Your task to perform on an android device: turn off priority inbox in the gmail app Image 0: 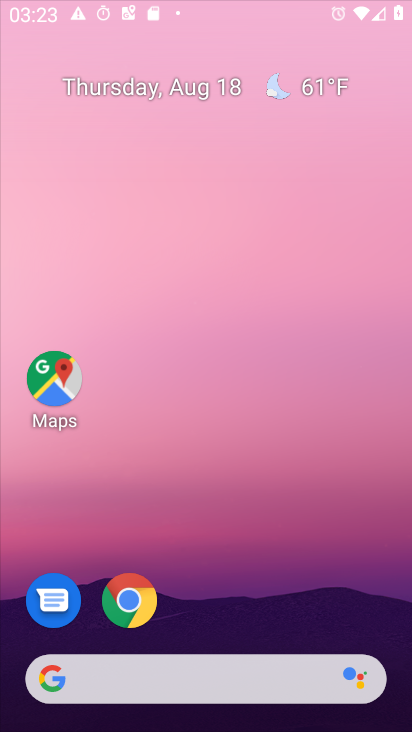
Step 0: press home button
Your task to perform on an android device: turn off priority inbox in the gmail app Image 1: 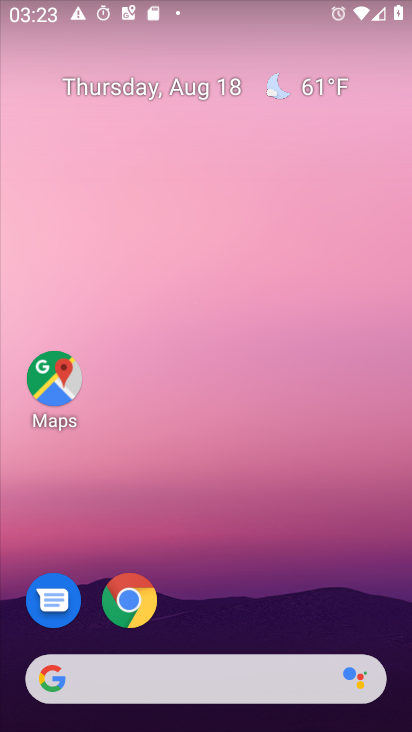
Step 1: drag from (285, 610) to (305, 25)
Your task to perform on an android device: turn off priority inbox in the gmail app Image 2: 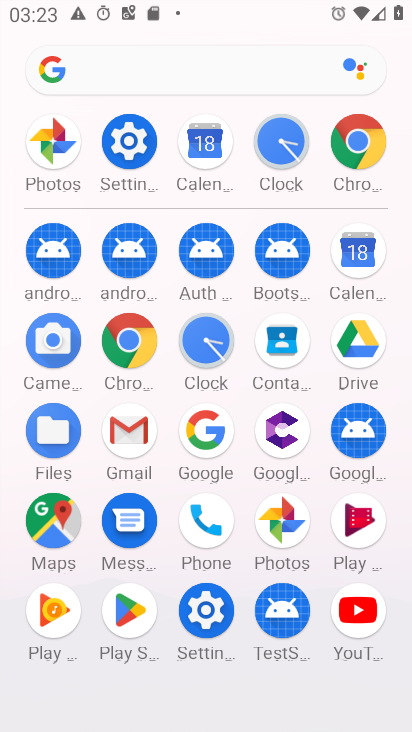
Step 2: click (129, 428)
Your task to perform on an android device: turn off priority inbox in the gmail app Image 3: 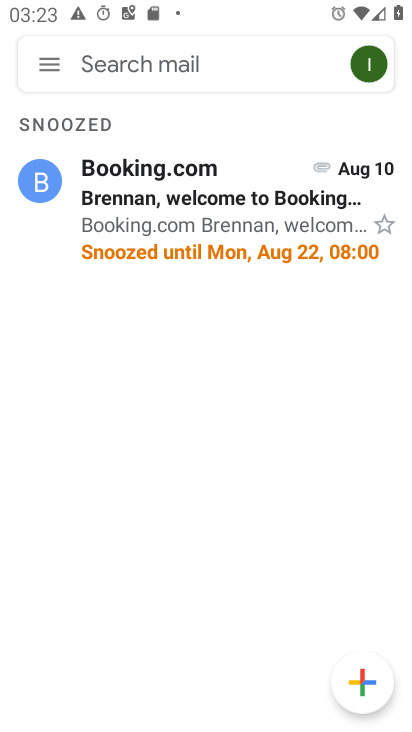
Step 3: click (49, 73)
Your task to perform on an android device: turn off priority inbox in the gmail app Image 4: 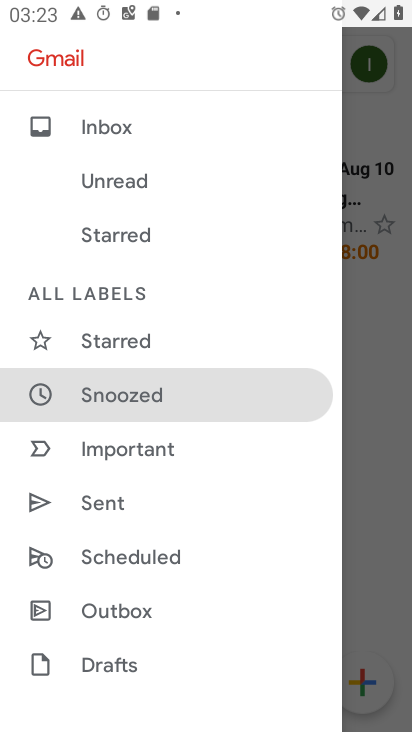
Step 4: drag from (277, 636) to (308, 249)
Your task to perform on an android device: turn off priority inbox in the gmail app Image 5: 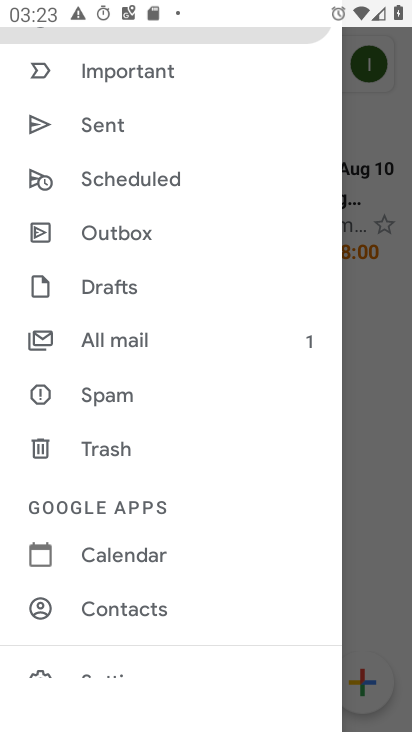
Step 5: drag from (273, 623) to (339, 375)
Your task to perform on an android device: turn off priority inbox in the gmail app Image 6: 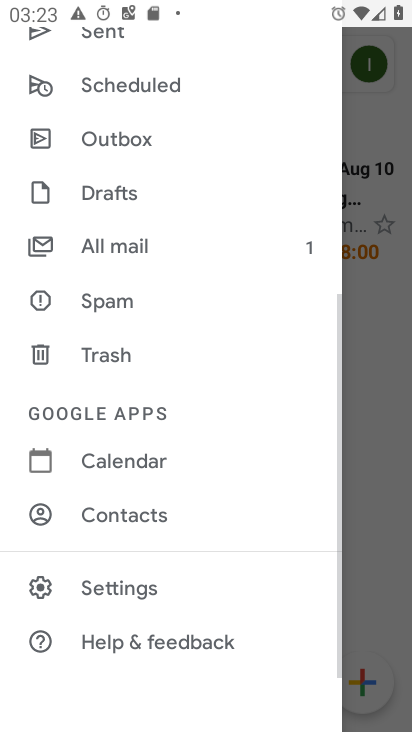
Step 6: click (117, 585)
Your task to perform on an android device: turn off priority inbox in the gmail app Image 7: 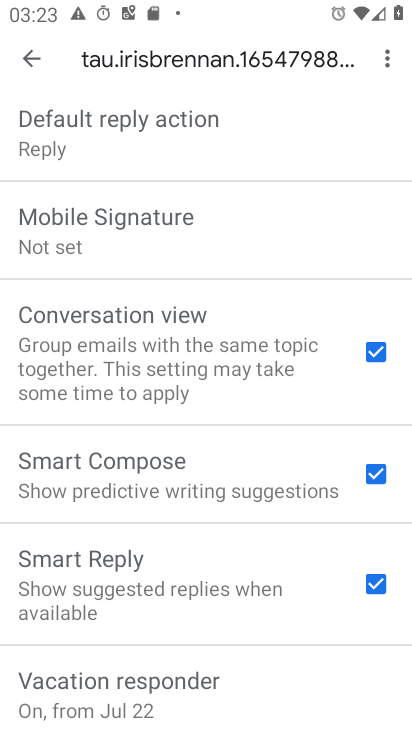
Step 7: drag from (275, 150) to (297, 566)
Your task to perform on an android device: turn off priority inbox in the gmail app Image 8: 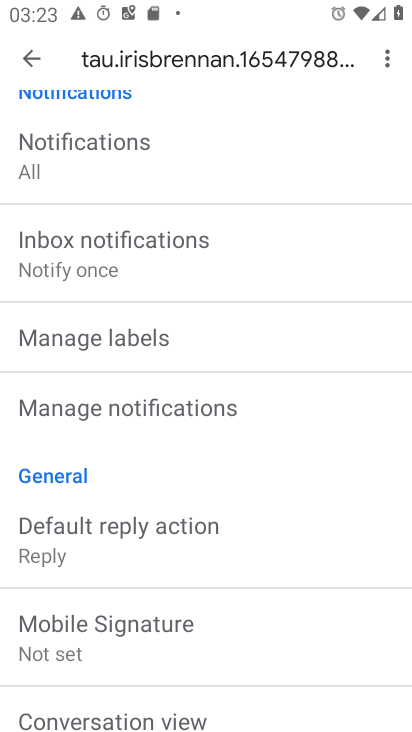
Step 8: drag from (191, 167) to (216, 467)
Your task to perform on an android device: turn off priority inbox in the gmail app Image 9: 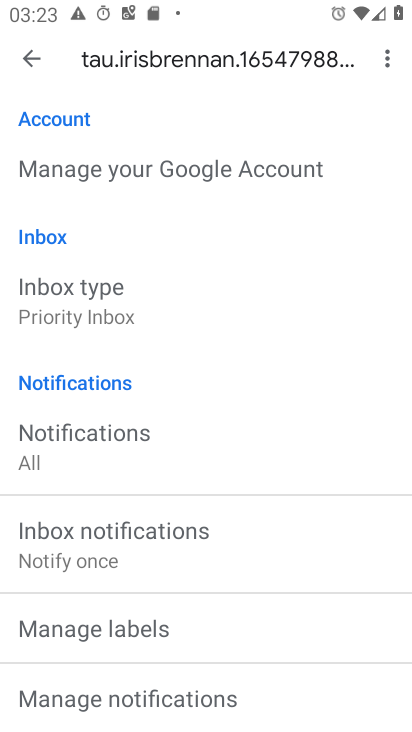
Step 9: click (50, 302)
Your task to perform on an android device: turn off priority inbox in the gmail app Image 10: 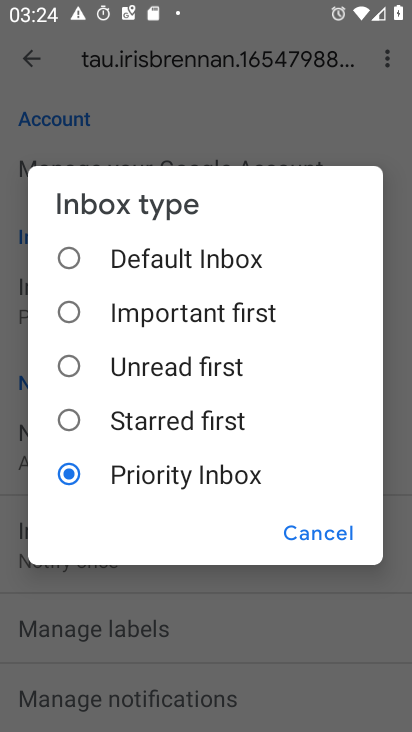
Step 10: click (68, 264)
Your task to perform on an android device: turn off priority inbox in the gmail app Image 11: 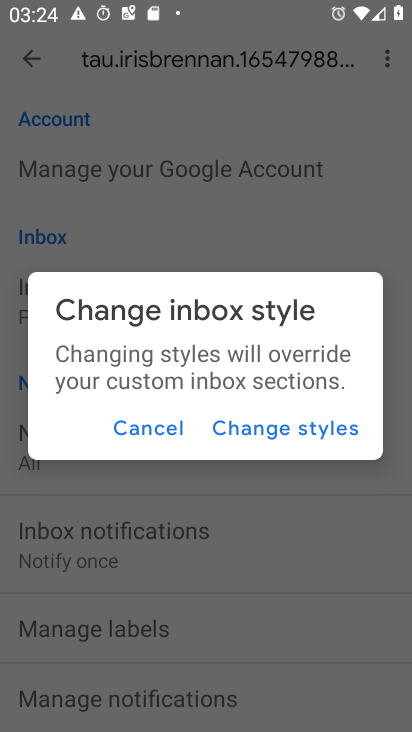
Step 11: click (306, 432)
Your task to perform on an android device: turn off priority inbox in the gmail app Image 12: 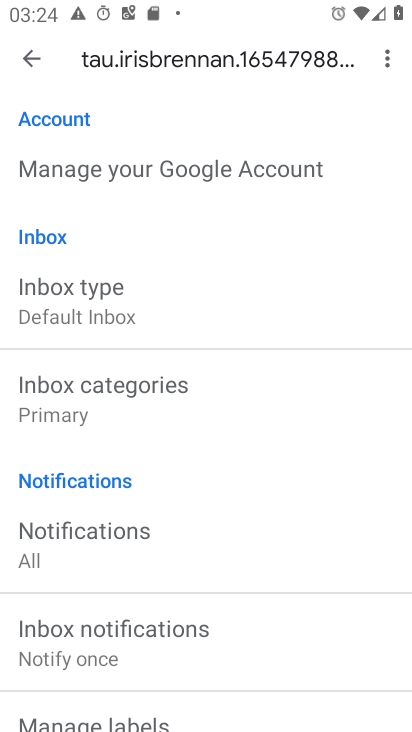
Step 12: task complete